Your task to perform on an android device: toggle priority inbox in the gmail app Image 0: 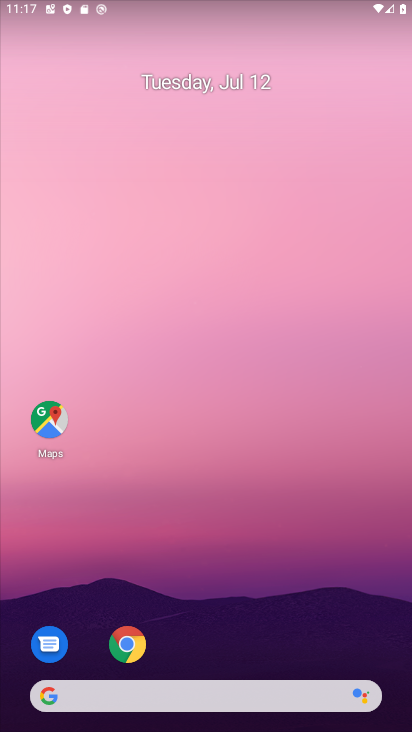
Step 0: drag from (187, 705) to (254, 0)
Your task to perform on an android device: toggle priority inbox in the gmail app Image 1: 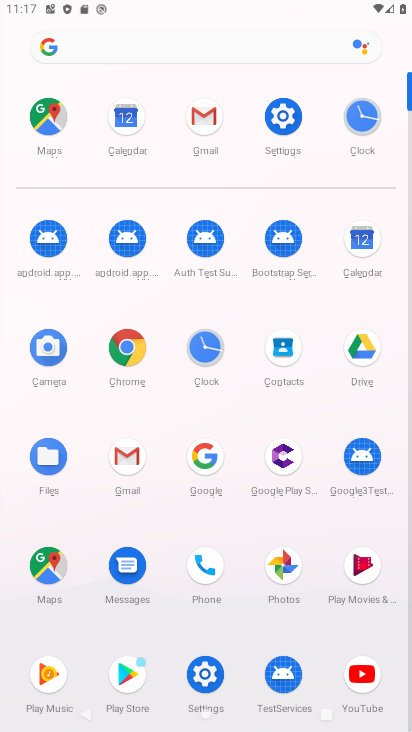
Step 1: click (197, 110)
Your task to perform on an android device: toggle priority inbox in the gmail app Image 2: 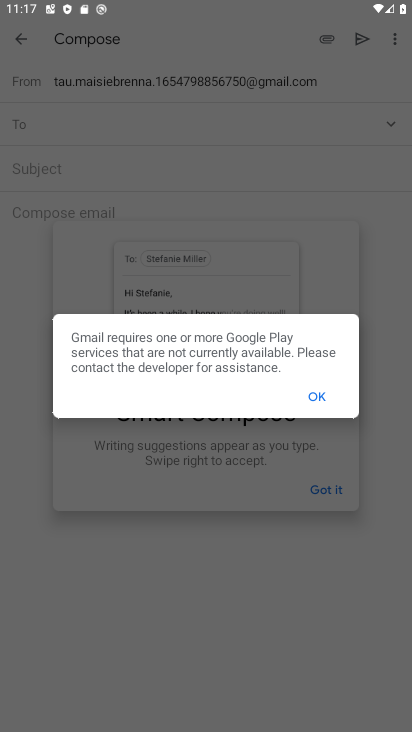
Step 2: press home button
Your task to perform on an android device: toggle priority inbox in the gmail app Image 3: 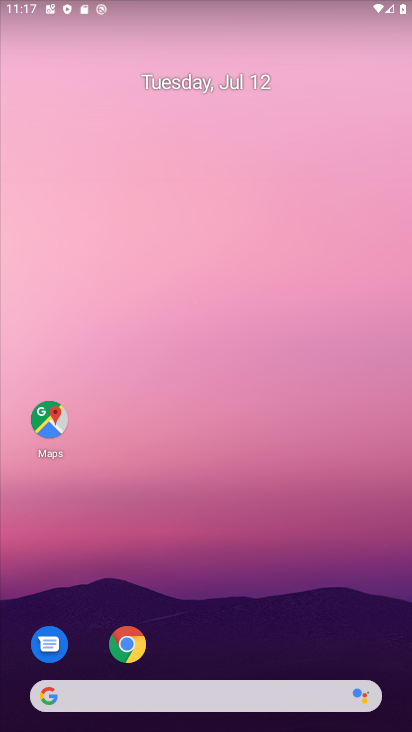
Step 3: drag from (203, 705) to (254, 19)
Your task to perform on an android device: toggle priority inbox in the gmail app Image 4: 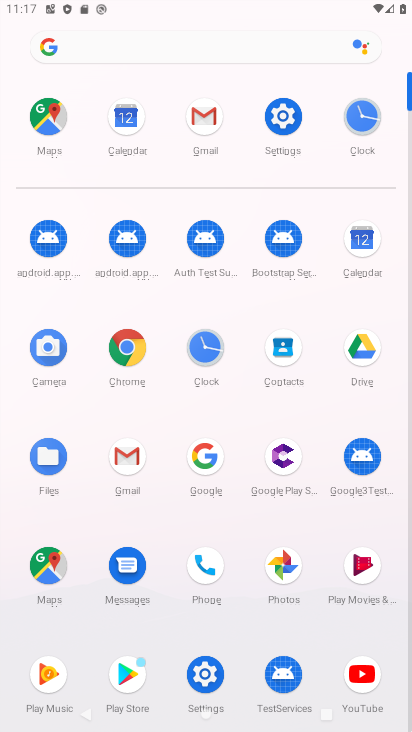
Step 4: click (194, 77)
Your task to perform on an android device: toggle priority inbox in the gmail app Image 5: 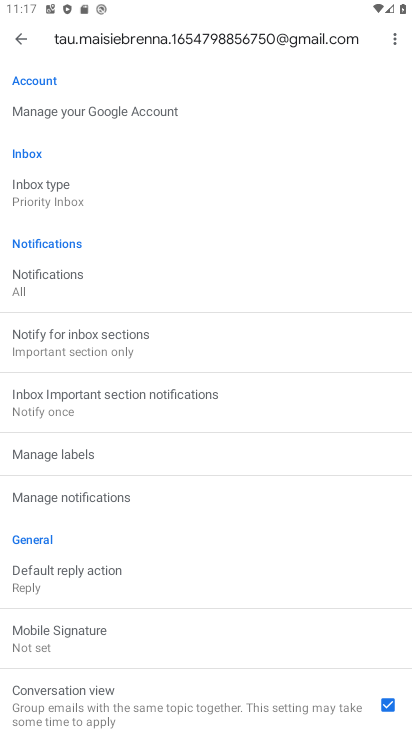
Step 5: click (53, 193)
Your task to perform on an android device: toggle priority inbox in the gmail app Image 6: 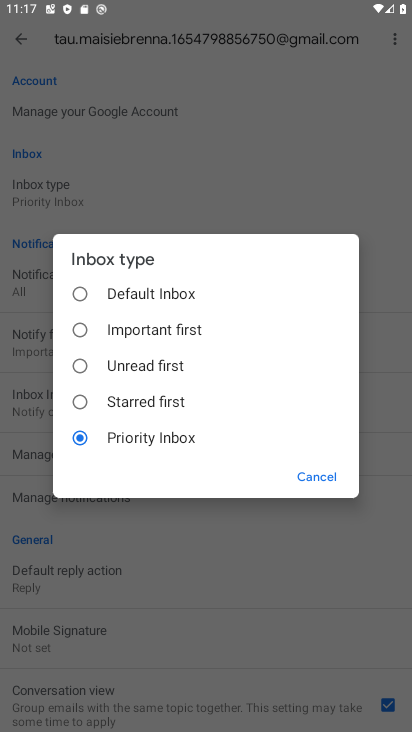
Step 6: click (76, 289)
Your task to perform on an android device: toggle priority inbox in the gmail app Image 7: 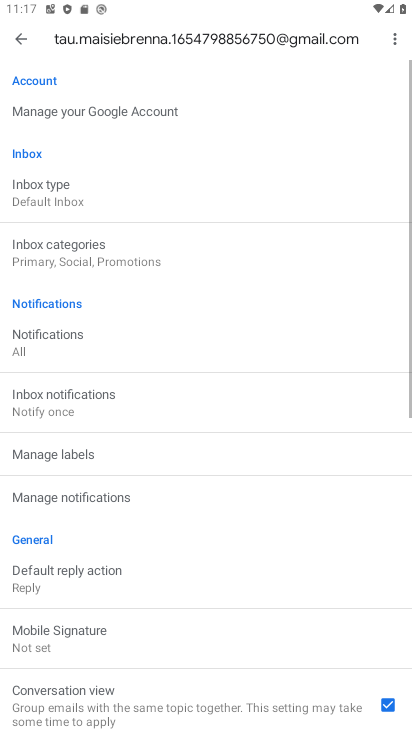
Step 7: task complete